Your task to perform on an android device: Go to Wikipedia Image 0: 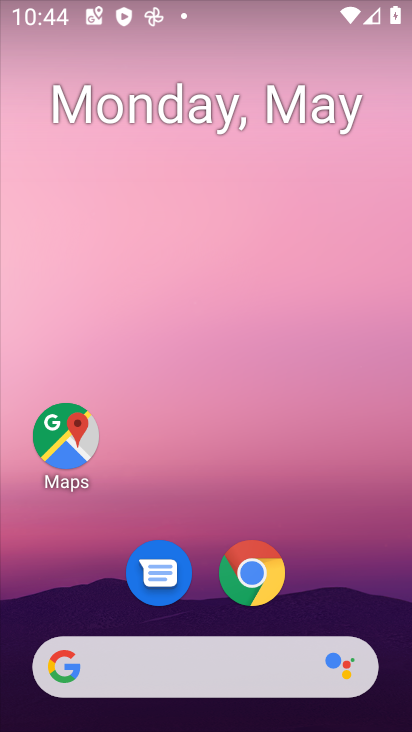
Step 0: drag from (359, 588) to (218, 148)
Your task to perform on an android device: Go to Wikipedia Image 1: 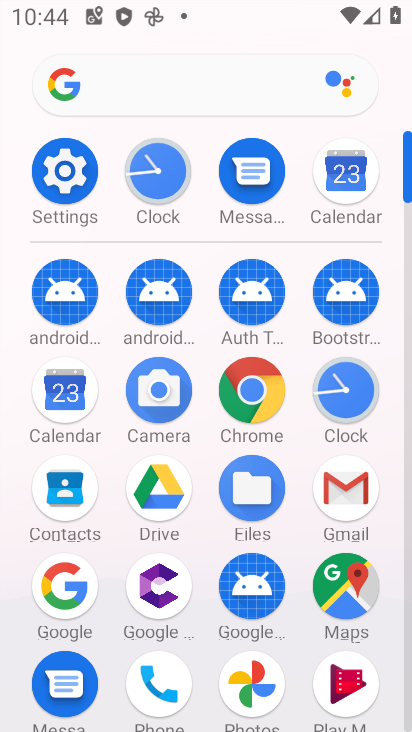
Step 1: click (187, 68)
Your task to perform on an android device: Go to Wikipedia Image 2: 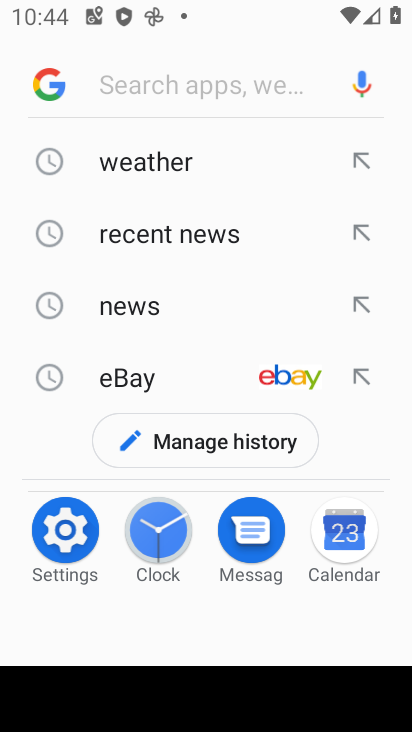
Step 2: type "wikipedia"
Your task to perform on an android device: Go to Wikipedia Image 3: 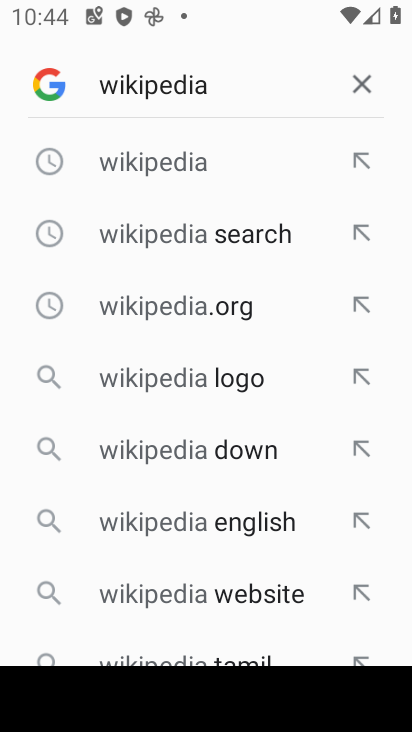
Step 3: click (193, 171)
Your task to perform on an android device: Go to Wikipedia Image 4: 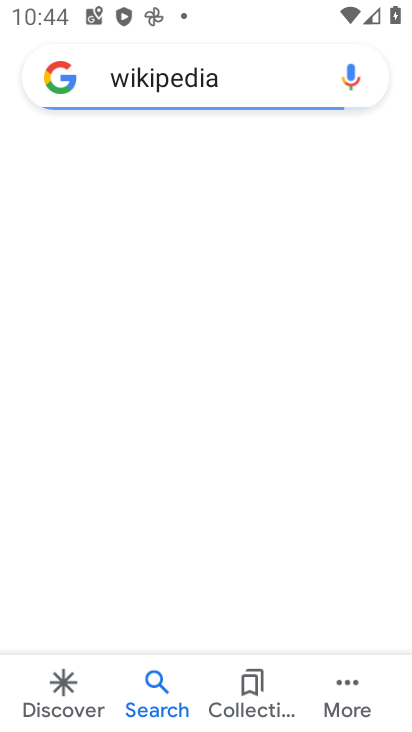
Step 4: task complete